Your task to perform on an android device: Open Google Image 0: 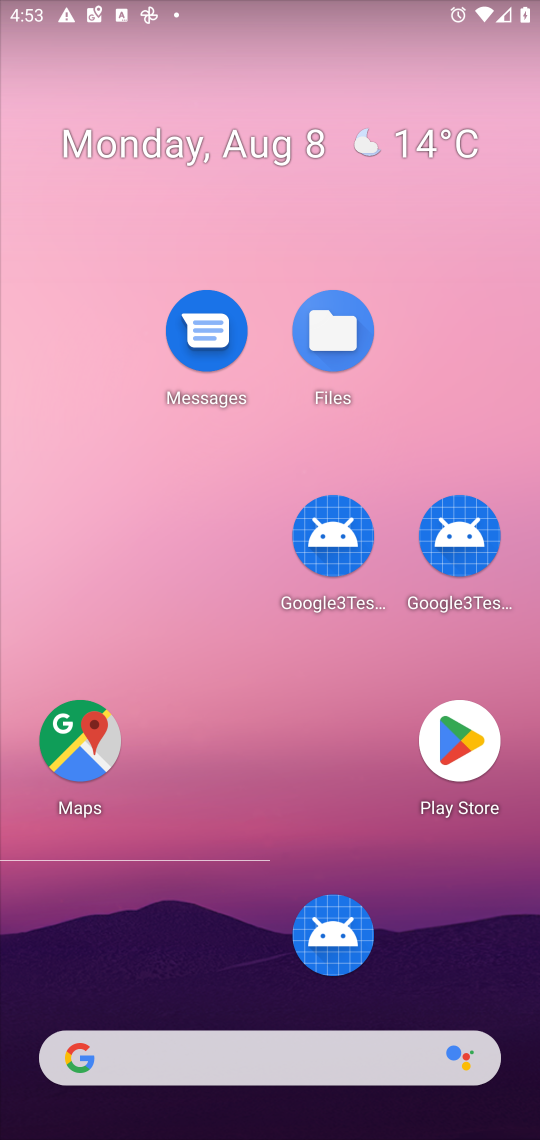
Step 0: drag from (270, 881) to (385, 131)
Your task to perform on an android device: Open Google Image 1: 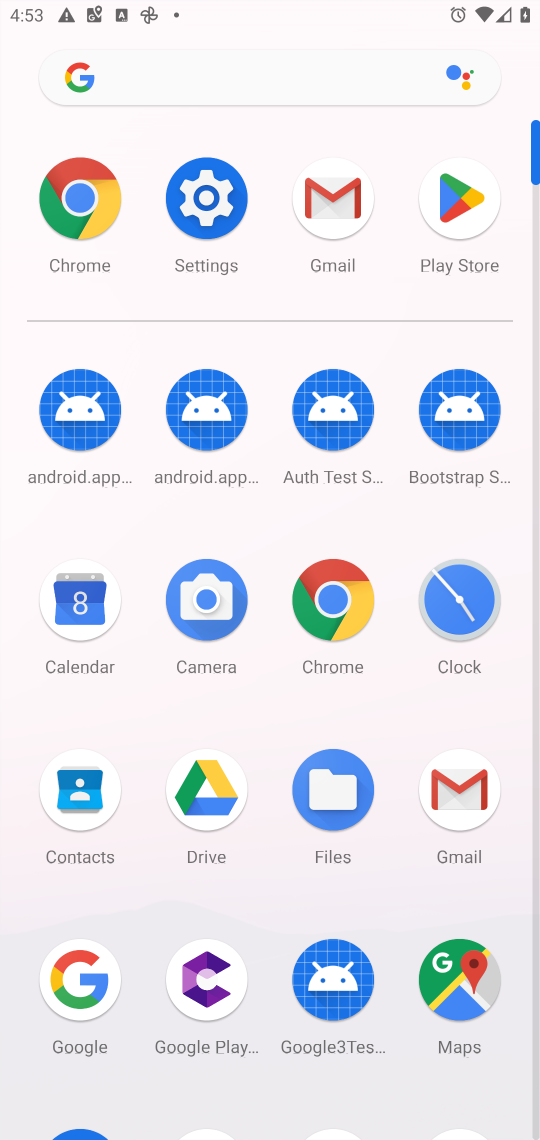
Step 1: click (348, 605)
Your task to perform on an android device: Open Google Image 2: 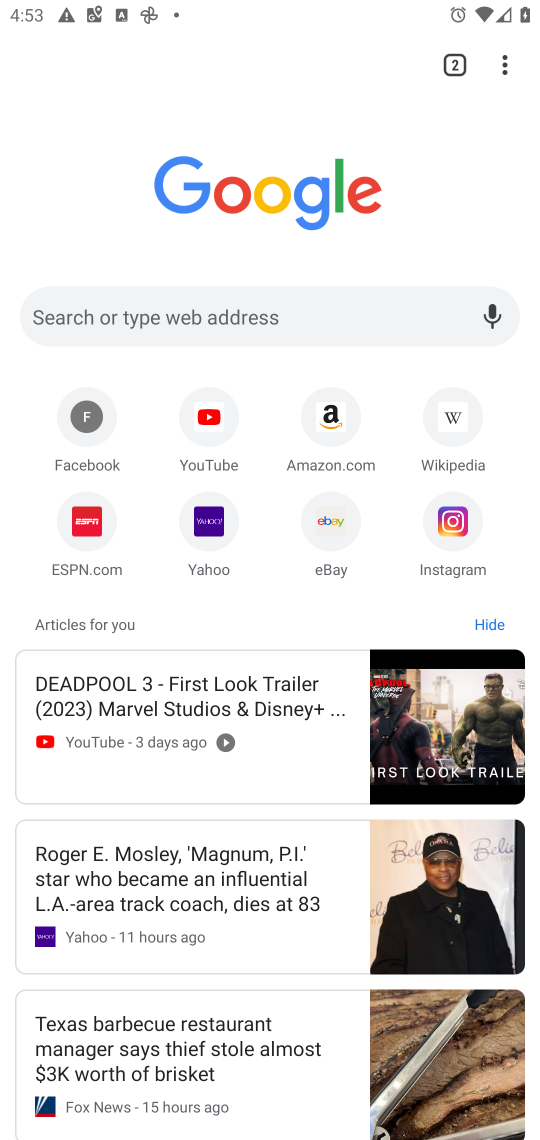
Step 2: task complete